Your task to perform on an android device: Go to Reddit.com Image 0: 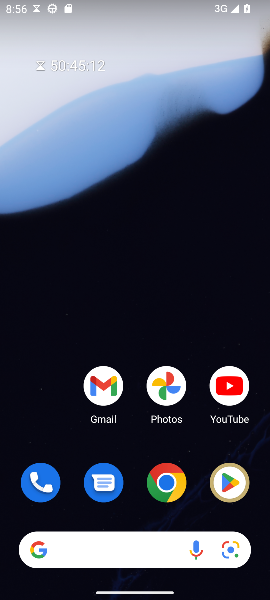
Step 0: drag from (92, 357) to (143, 77)
Your task to perform on an android device: Go to Reddit.com Image 1: 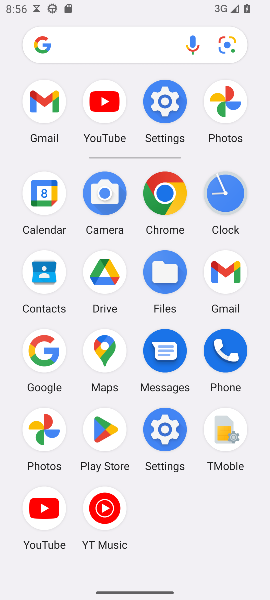
Step 1: click (165, 188)
Your task to perform on an android device: Go to Reddit.com Image 2: 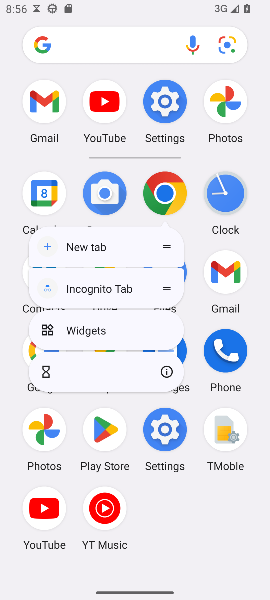
Step 2: click (145, 185)
Your task to perform on an android device: Go to Reddit.com Image 3: 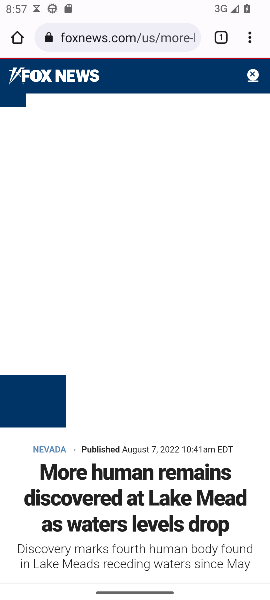
Step 3: click (105, 35)
Your task to perform on an android device: Go to Reddit.com Image 4: 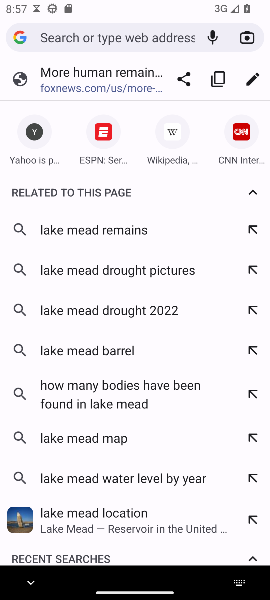
Step 4: type " Reddit.com"
Your task to perform on an android device: Go to Reddit.com Image 5: 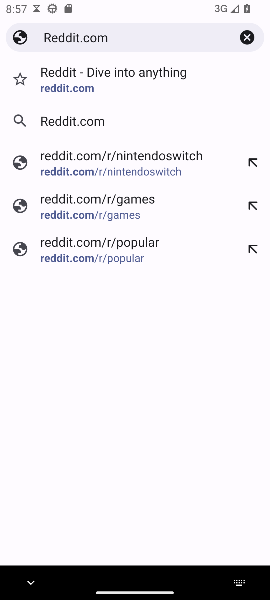
Step 5: click (68, 80)
Your task to perform on an android device: Go to Reddit.com Image 6: 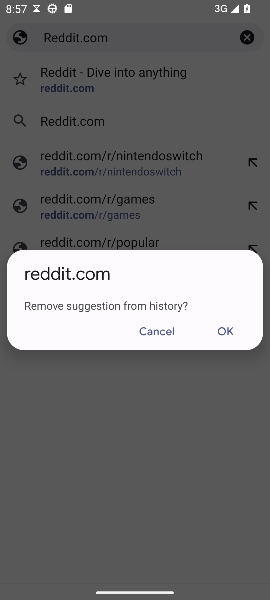
Step 6: click (227, 327)
Your task to perform on an android device: Go to Reddit.com Image 7: 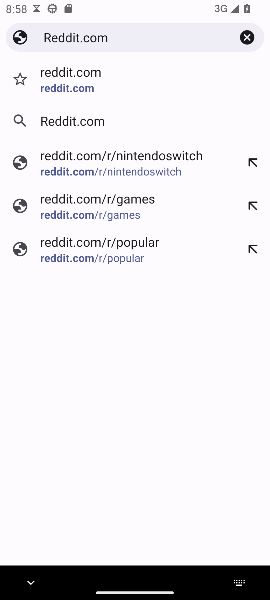
Step 7: click (66, 84)
Your task to perform on an android device: Go to Reddit.com Image 8: 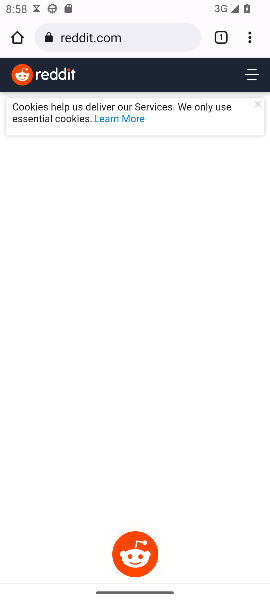
Step 8: task complete